Your task to perform on an android device: Open Android settings Image 0: 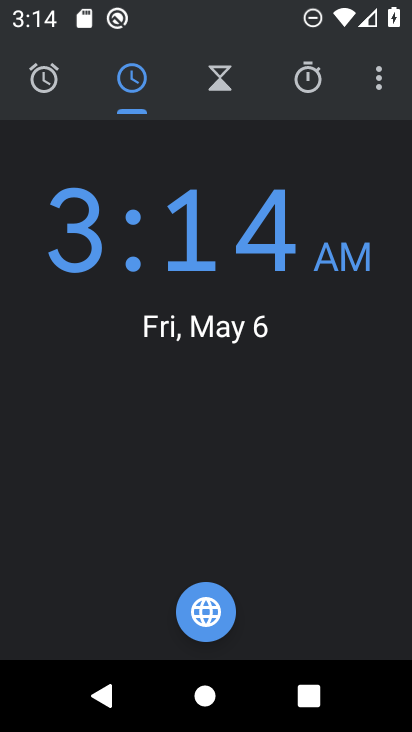
Step 0: press home button
Your task to perform on an android device: Open Android settings Image 1: 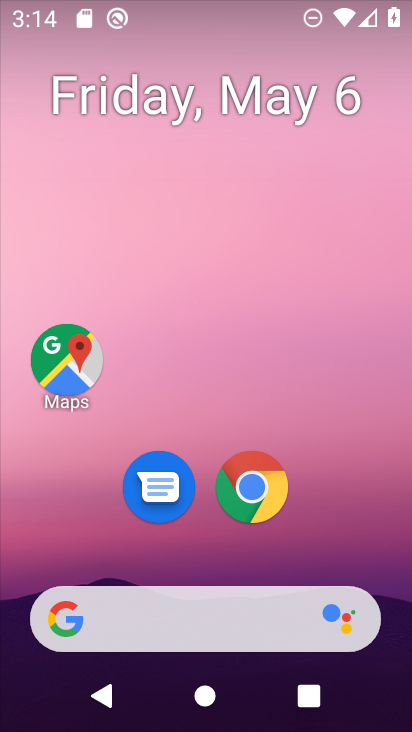
Step 1: drag from (305, 565) to (320, 13)
Your task to perform on an android device: Open Android settings Image 2: 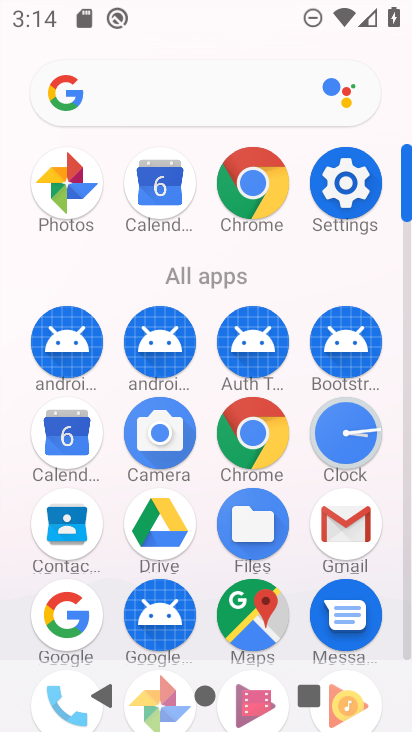
Step 2: click (356, 180)
Your task to perform on an android device: Open Android settings Image 3: 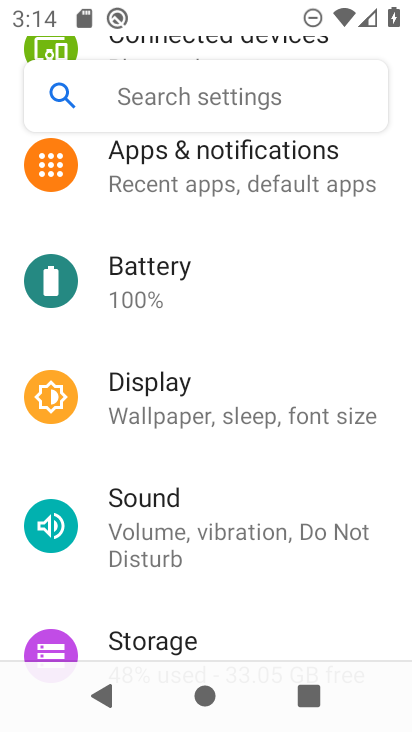
Step 3: drag from (210, 595) to (202, 370)
Your task to perform on an android device: Open Android settings Image 4: 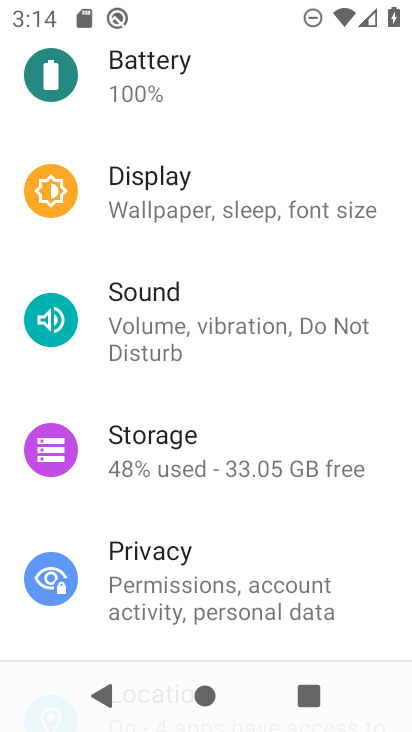
Step 4: drag from (235, 582) to (228, 385)
Your task to perform on an android device: Open Android settings Image 5: 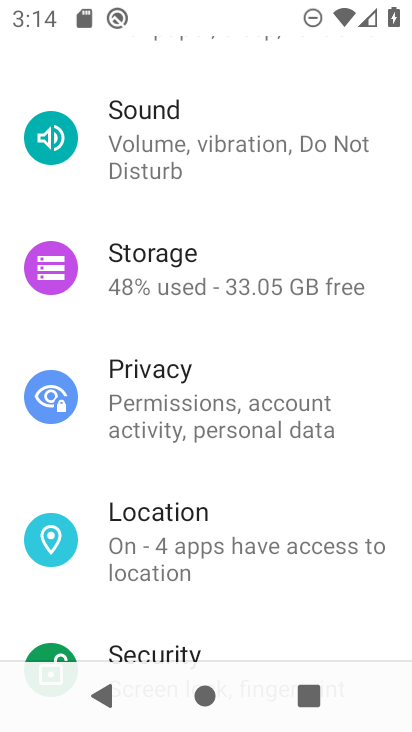
Step 5: drag from (260, 593) to (231, 383)
Your task to perform on an android device: Open Android settings Image 6: 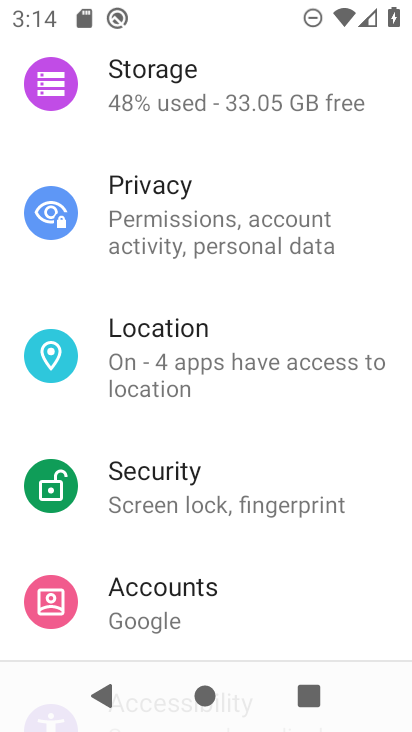
Step 6: drag from (275, 603) to (259, 457)
Your task to perform on an android device: Open Android settings Image 7: 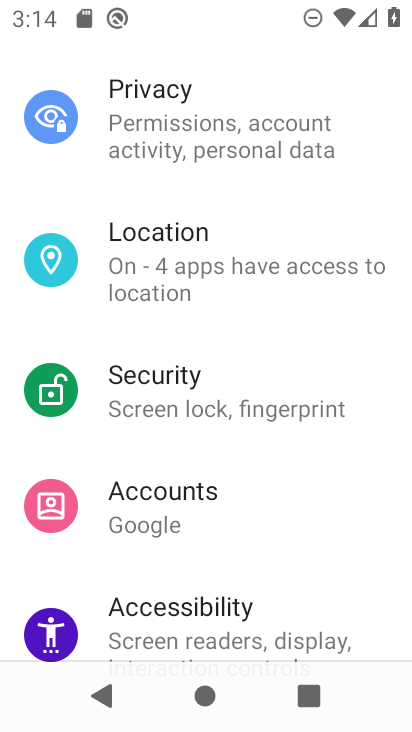
Step 7: drag from (244, 599) to (252, 304)
Your task to perform on an android device: Open Android settings Image 8: 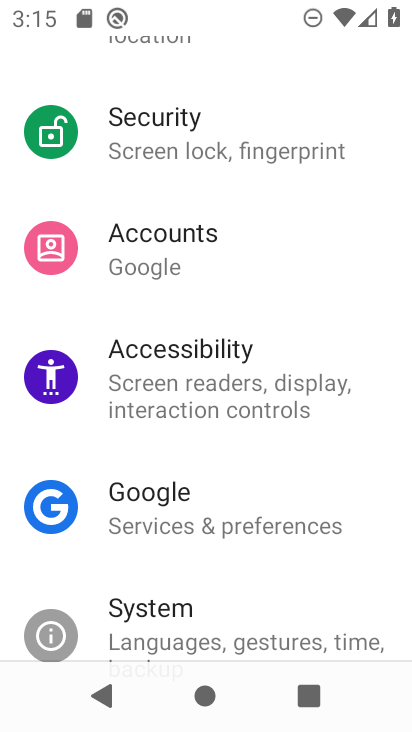
Step 8: drag from (257, 623) to (223, 261)
Your task to perform on an android device: Open Android settings Image 9: 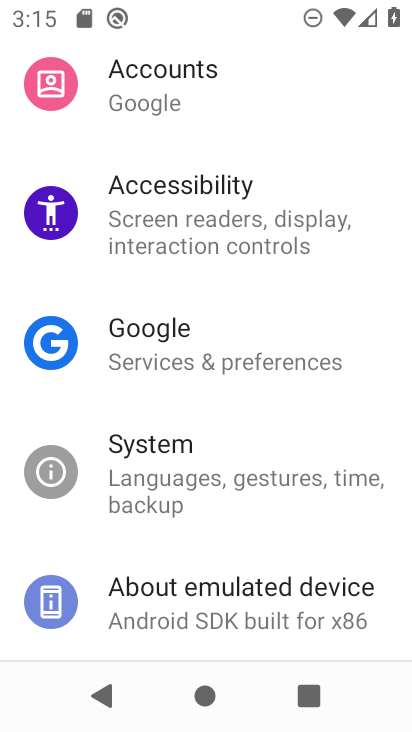
Step 9: click (229, 619)
Your task to perform on an android device: Open Android settings Image 10: 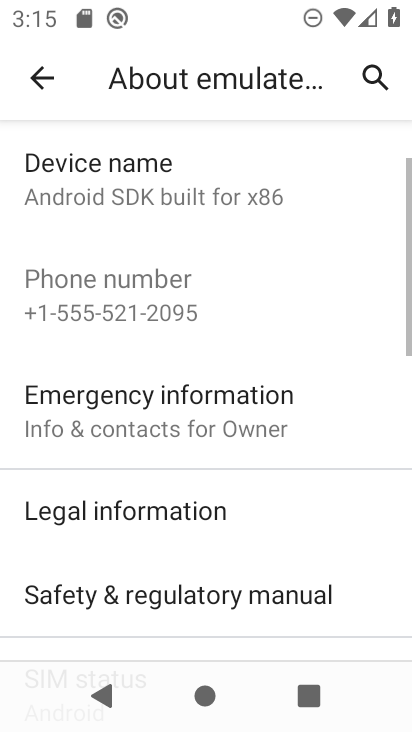
Step 10: drag from (284, 602) to (281, 352)
Your task to perform on an android device: Open Android settings Image 11: 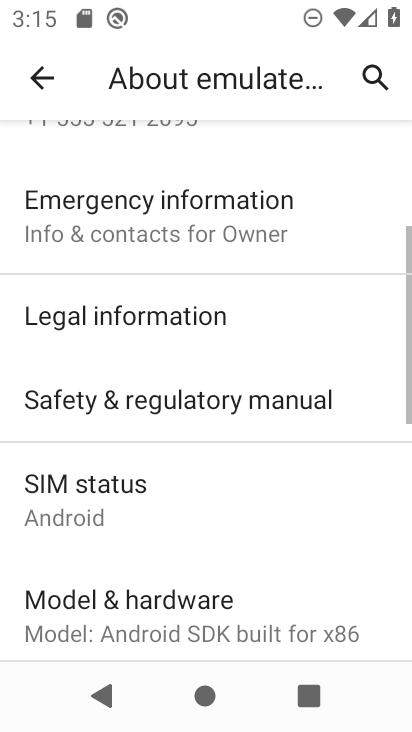
Step 11: drag from (261, 597) to (252, 345)
Your task to perform on an android device: Open Android settings Image 12: 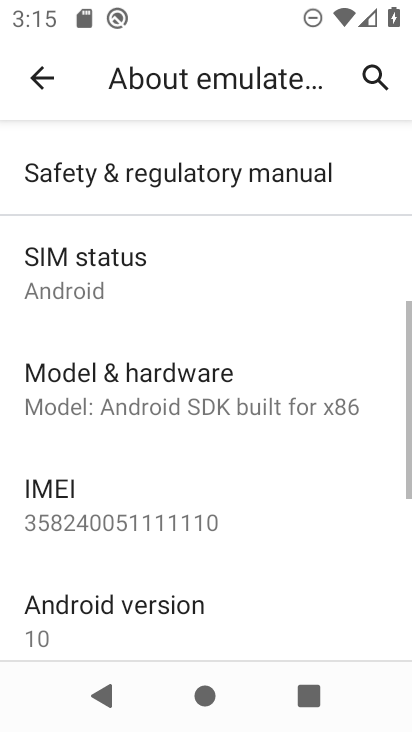
Step 12: drag from (198, 611) to (225, 429)
Your task to perform on an android device: Open Android settings Image 13: 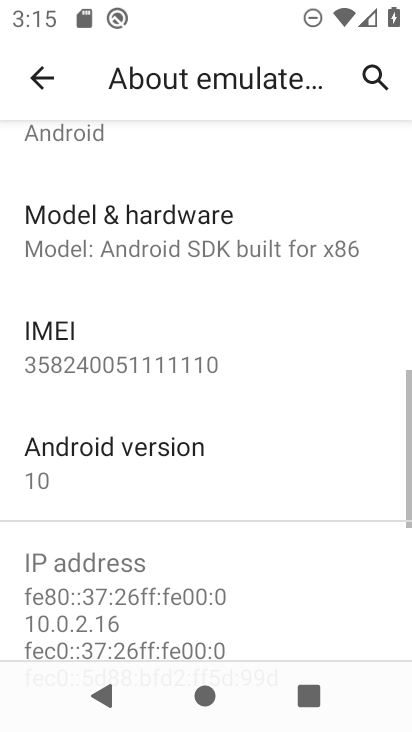
Step 13: click (177, 492)
Your task to perform on an android device: Open Android settings Image 14: 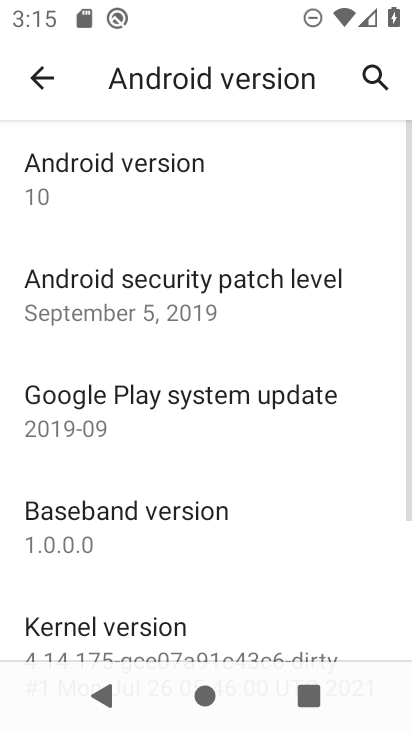
Step 14: click (255, 182)
Your task to perform on an android device: Open Android settings Image 15: 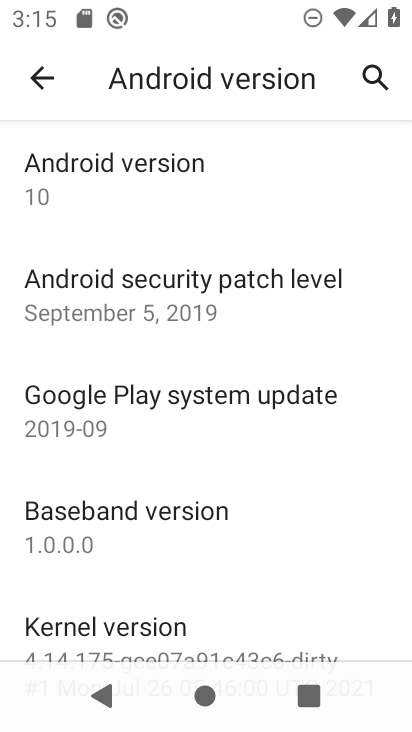
Step 15: task complete